Your task to perform on an android device: Go to Google Image 0: 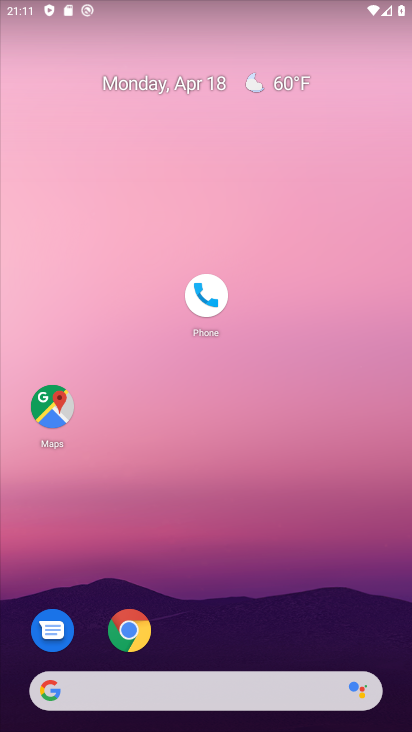
Step 0: drag from (282, 525) to (352, 60)
Your task to perform on an android device: Go to Google Image 1: 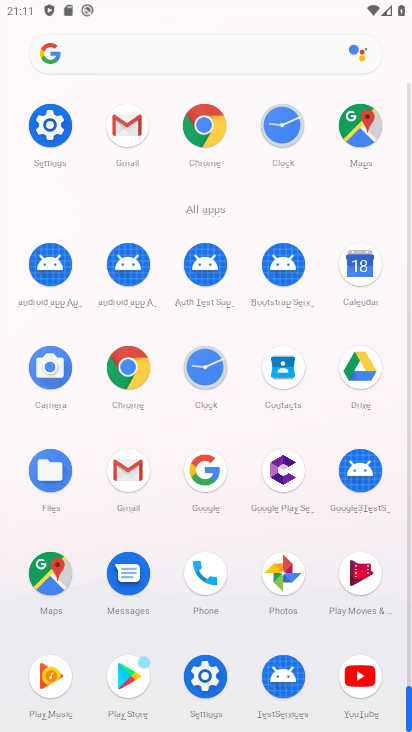
Step 1: click (211, 465)
Your task to perform on an android device: Go to Google Image 2: 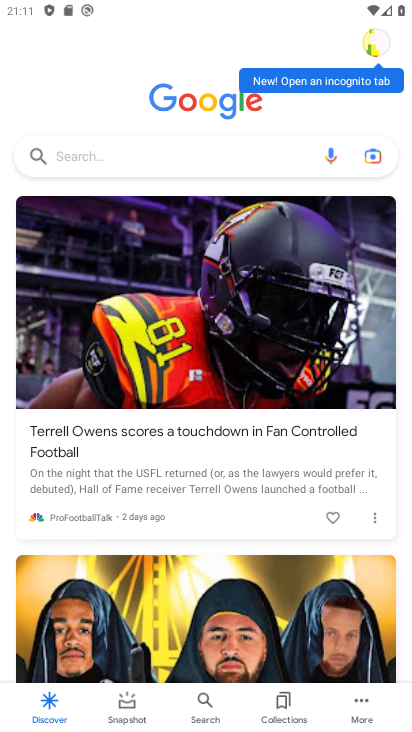
Step 2: task complete